Your task to perform on an android device: Open Wikipedia Image 0: 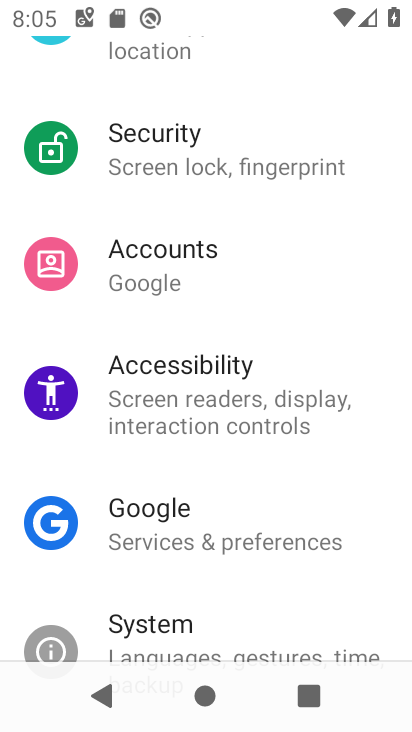
Step 0: press home button
Your task to perform on an android device: Open Wikipedia Image 1: 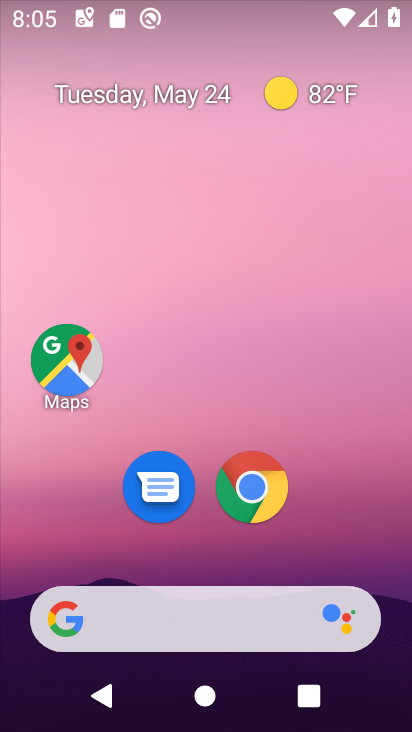
Step 1: drag from (296, 526) to (304, 206)
Your task to perform on an android device: Open Wikipedia Image 2: 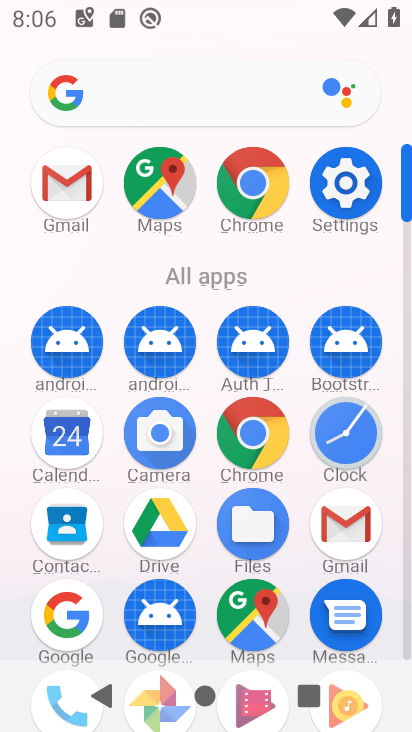
Step 2: click (259, 214)
Your task to perform on an android device: Open Wikipedia Image 3: 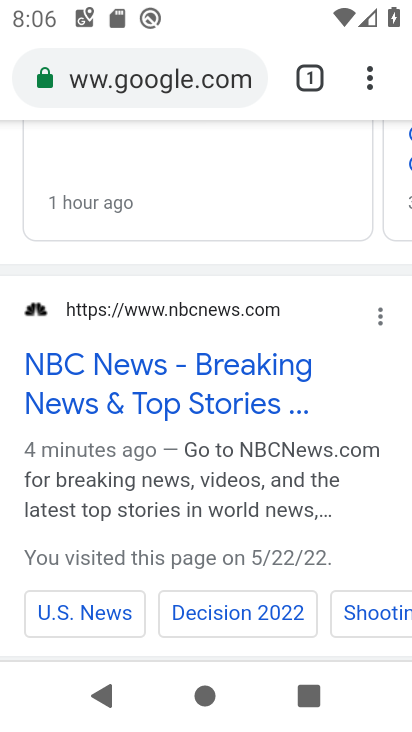
Step 3: drag from (210, 160) to (174, 412)
Your task to perform on an android device: Open Wikipedia Image 4: 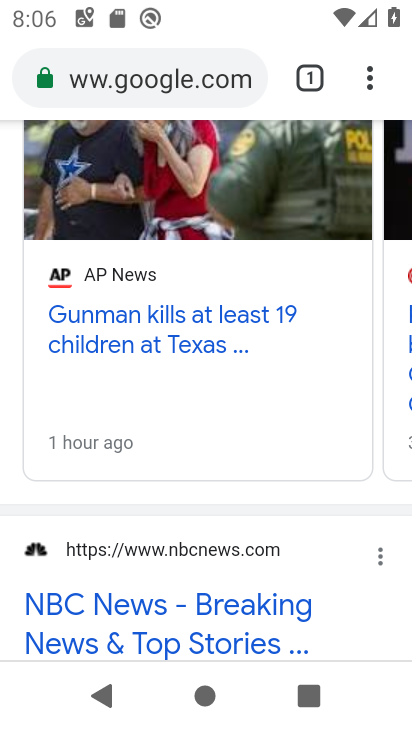
Step 4: click (303, 78)
Your task to perform on an android device: Open Wikipedia Image 5: 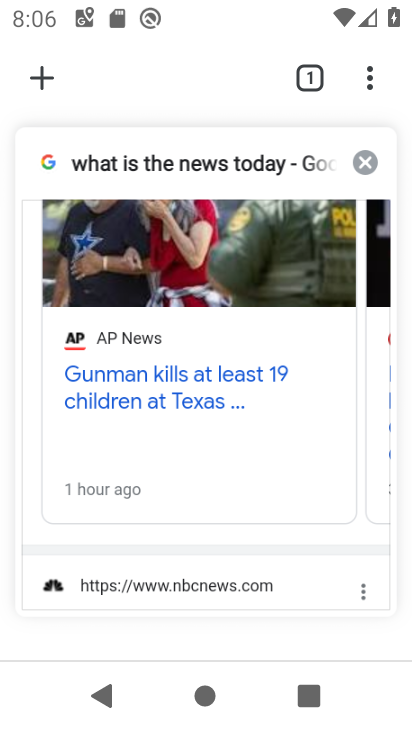
Step 5: click (47, 80)
Your task to perform on an android device: Open Wikipedia Image 6: 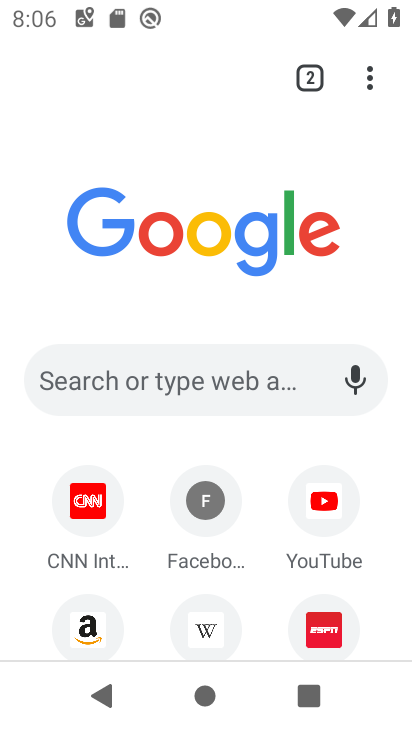
Step 6: click (218, 634)
Your task to perform on an android device: Open Wikipedia Image 7: 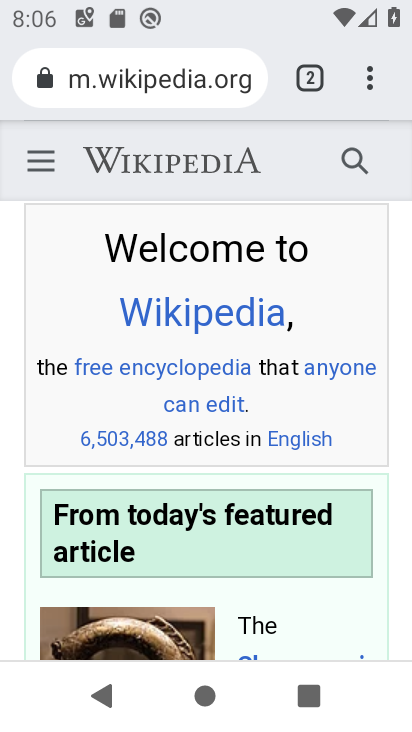
Step 7: task complete